Your task to perform on an android device: delete the emails in spam in the gmail app Image 0: 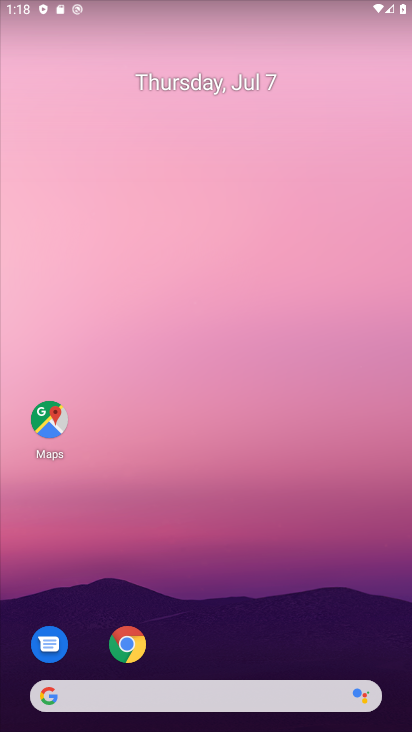
Step 0: drag from (240, 652) to (246, 84)
Your task to perform on an android device: delete the emails in spam in the gmail app Image 1: 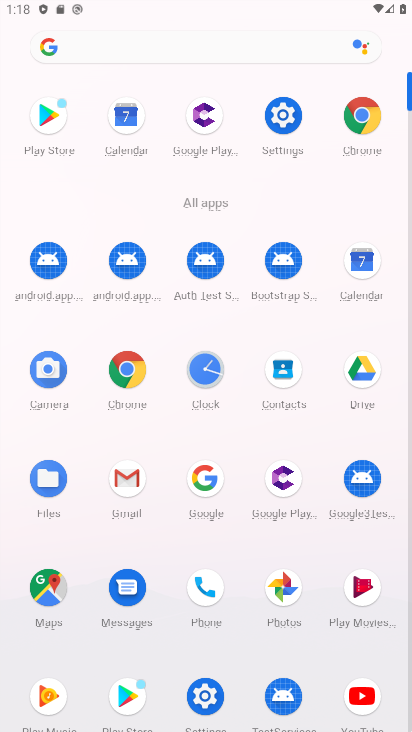
Step 1: click (128, 476)
Your task to perform on an android device: delete the emails in spam in the gmail app Image 2: 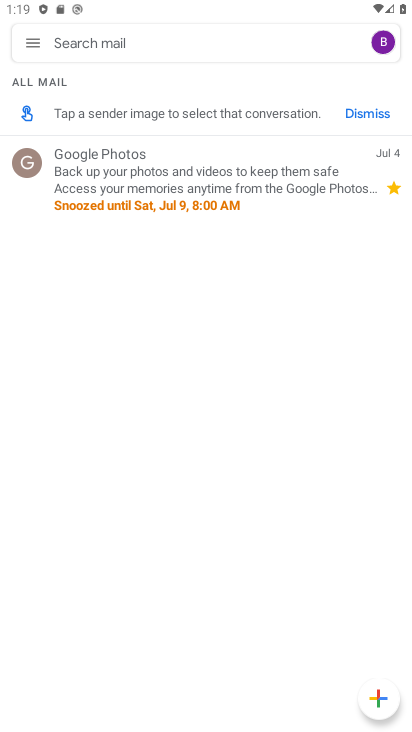
Step 2: click (31, 44)
Your task to perform on an android device: delete the emails in spam in the gmail app Image 3: 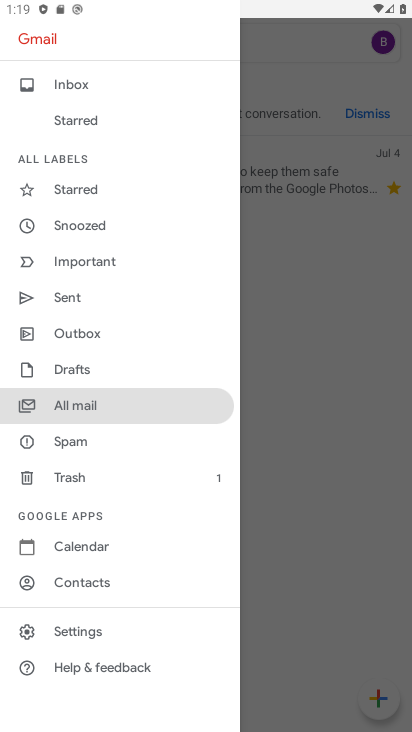
Step 3: click (67, 441)
Your task to perform on an android device: delete the emails in spam in the gmail app Image 4: 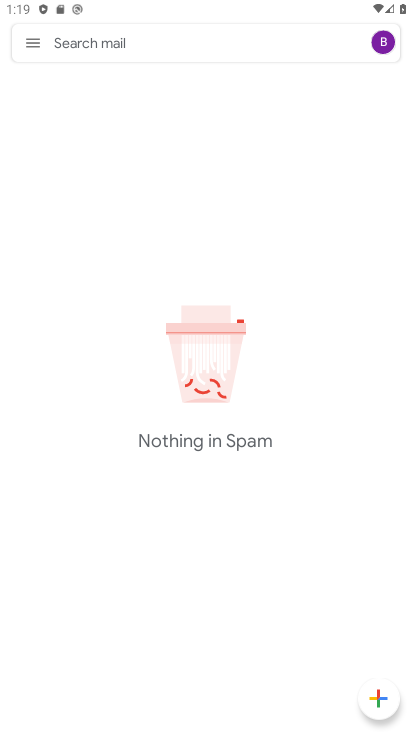
Step 4: task complete